Your task to perform on an android device: Open notification settings Image 0: 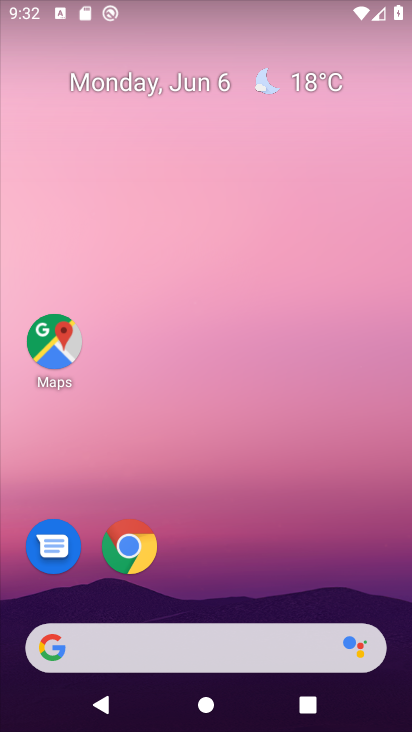
Step 0: drag from (383, 605) to (342, 88)
Your task to perform on an android device: Open notification settings Image 1: 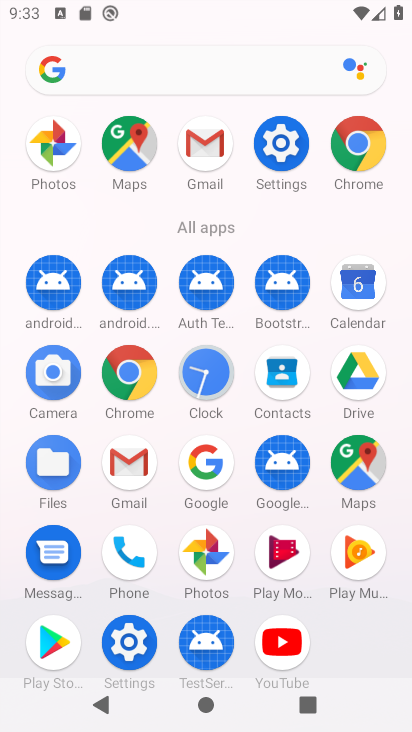
Step 1: click (128, 641)
Your task to perform on an android device: Open notification settings Image 2: 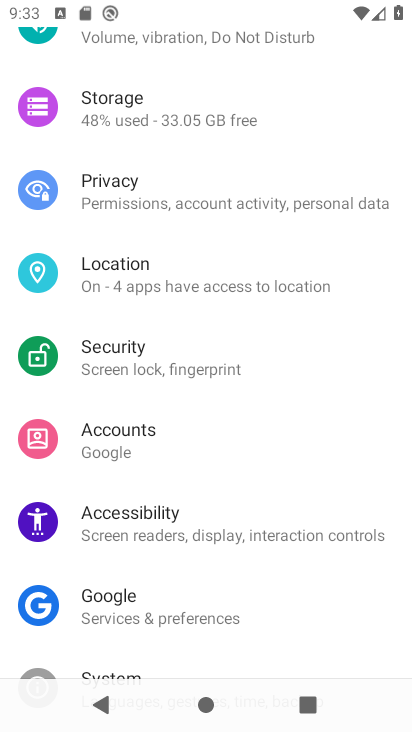
Step 2: drag from (339, 163) to (326, 485)
Your task to perform on an android device: Open notification settings Image 3: 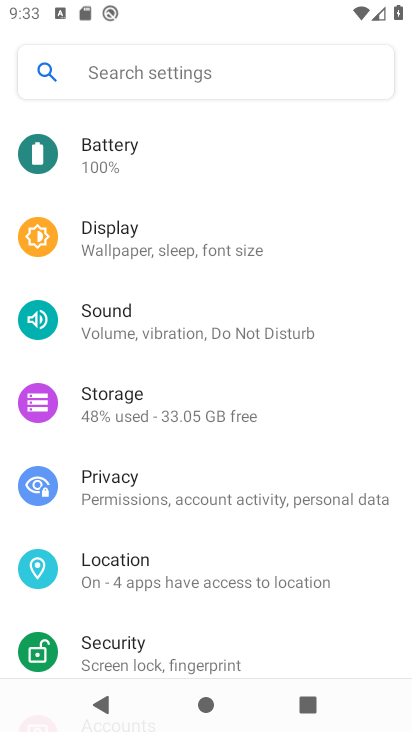
Step 3: drag from (326, 202) to (325, 433)
Your task to perform on an android device: Open notification settings Image 4: 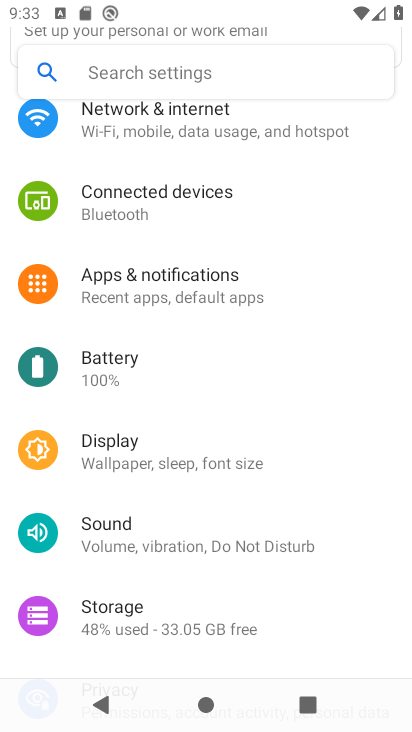
Step 4: click (126, 269)
Your task to perform on an android device: Open notification settings Image 5: 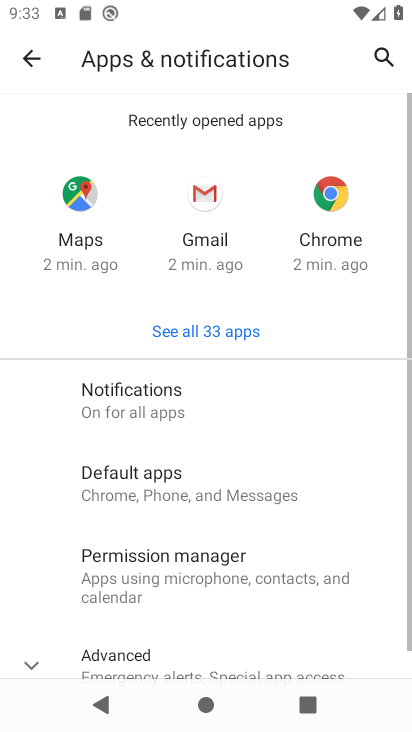
Step 5: click (125, 401)
Your task to perform on an android device: Open notification settings Image 6: 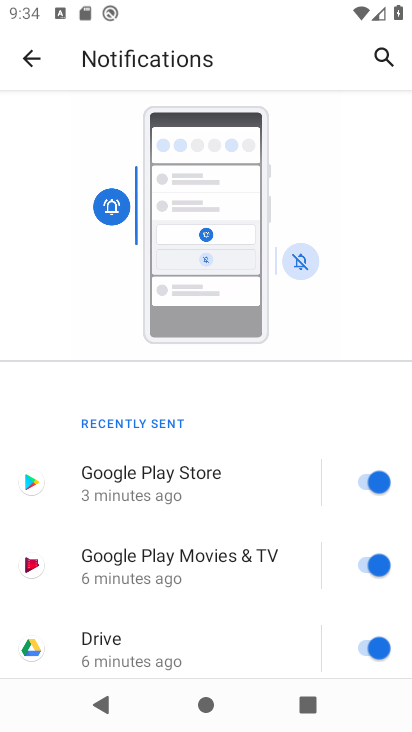
Step 6: drag from (307, 644) to (319, 128)
Your task to perform on an android device: Open notification settings Image 7: 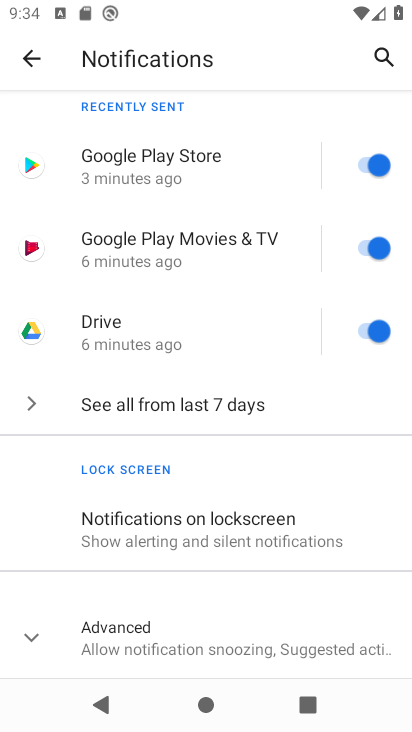
Step 7: click (26, 640)
Your task to perform on an android device: Open notification settings Image 8: 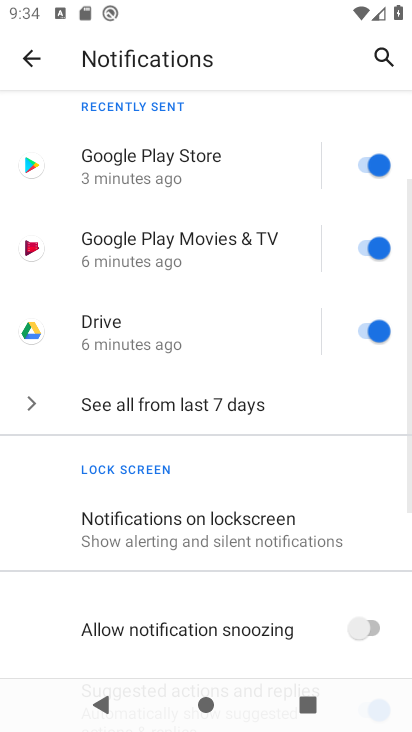
Step 8: task complete